Your task to perform on an android device: delete the emails in spam in the gmail app Image 0: 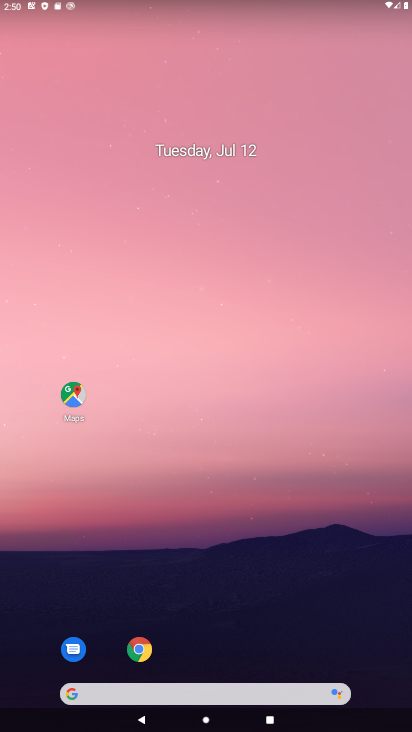
Step 0: drag from (304, 642) to (153, 104)
Your task to perform on an android device: delete the emails in spam in the gmail app Image 1: 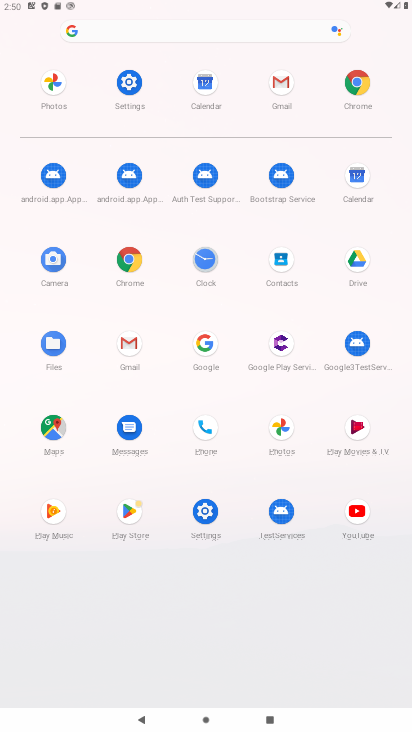
Step 1: click (276, 83)
Your task to perform on an android device: delete the emails in spam in the gmail app Image 2: 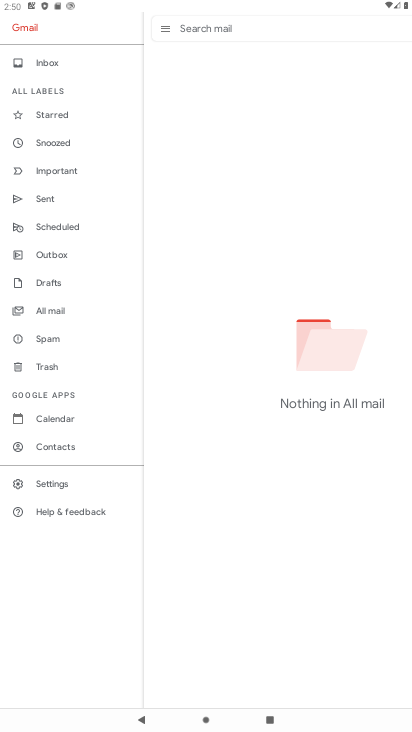
Step 2: click (49, 340)
Your task to perform on an android device: delete the emails in spam in the gmail app Image 3: 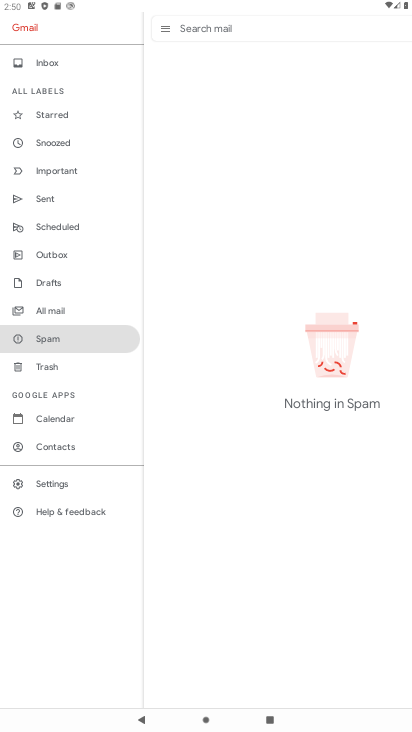
Step 3: task complete